Your task to perform on an android device: Add bose quietcomfort 35 to the cart on amazon.com Image 0: 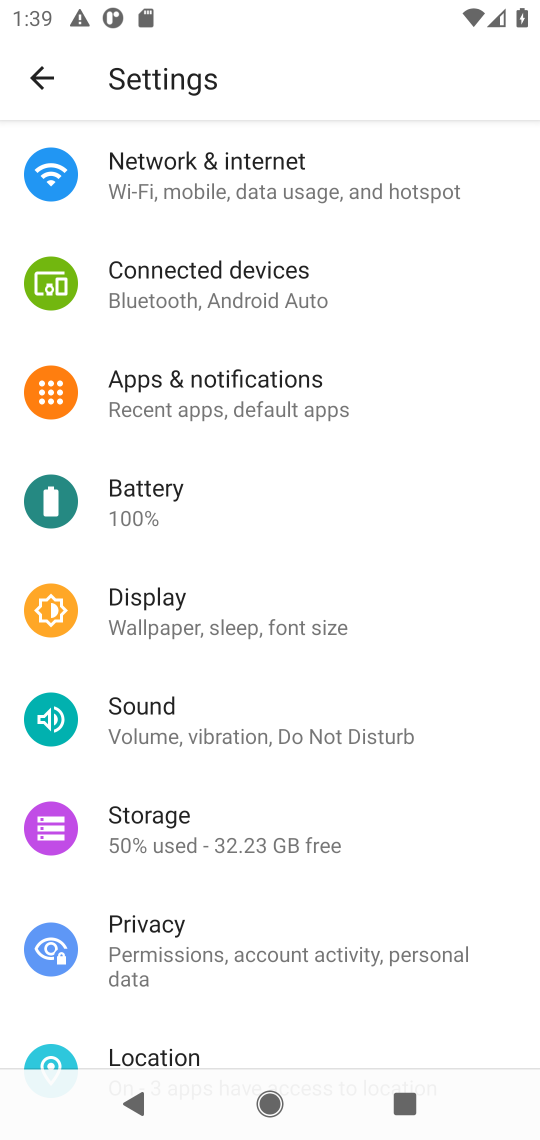
Step 0: press home button
Your task to perform on an android device: Add bose quietcomfort 35 to the cart on amazon.com Image 1: 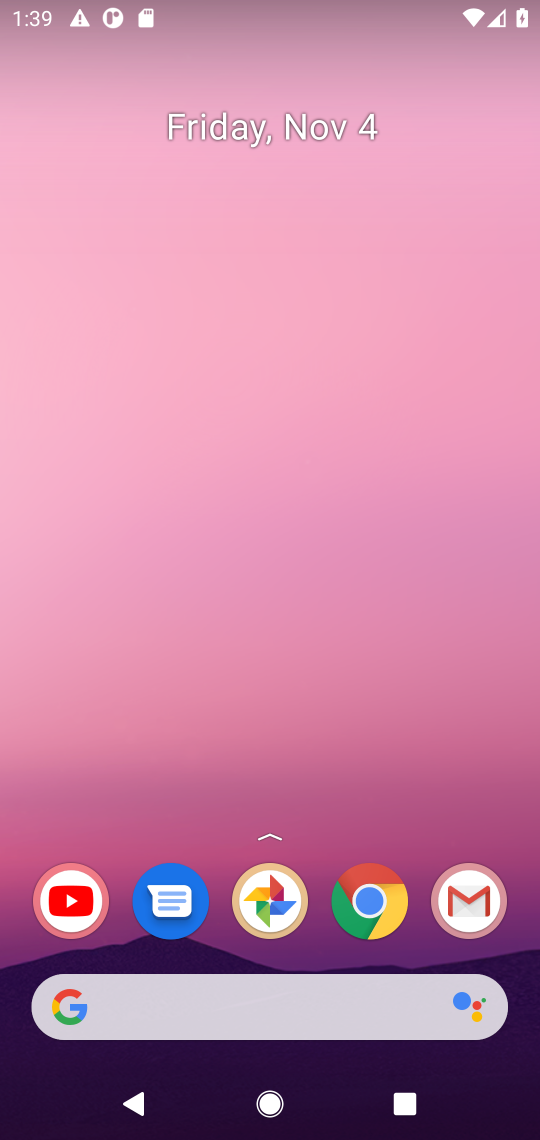
Step 1: click (358, 903)
Your task to perform on an android device: Add bose quietcomfort 35 to the cart on amazon.com Image 2: 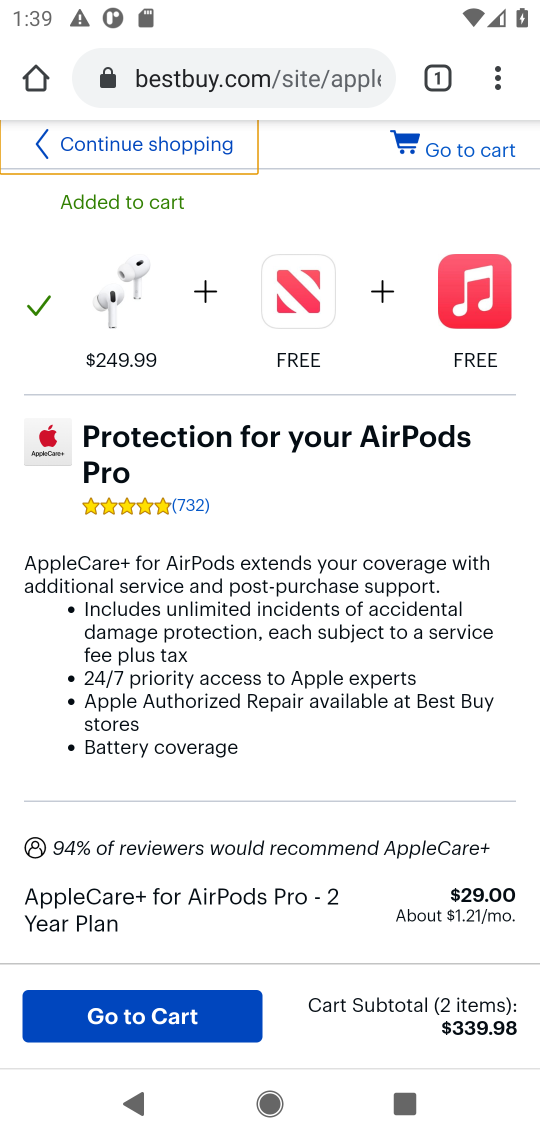
Step 2: click (31, 78)
Your task to perform on an android device: Add bose quietcomfort 35 to the cart on amazon.com Image 3: 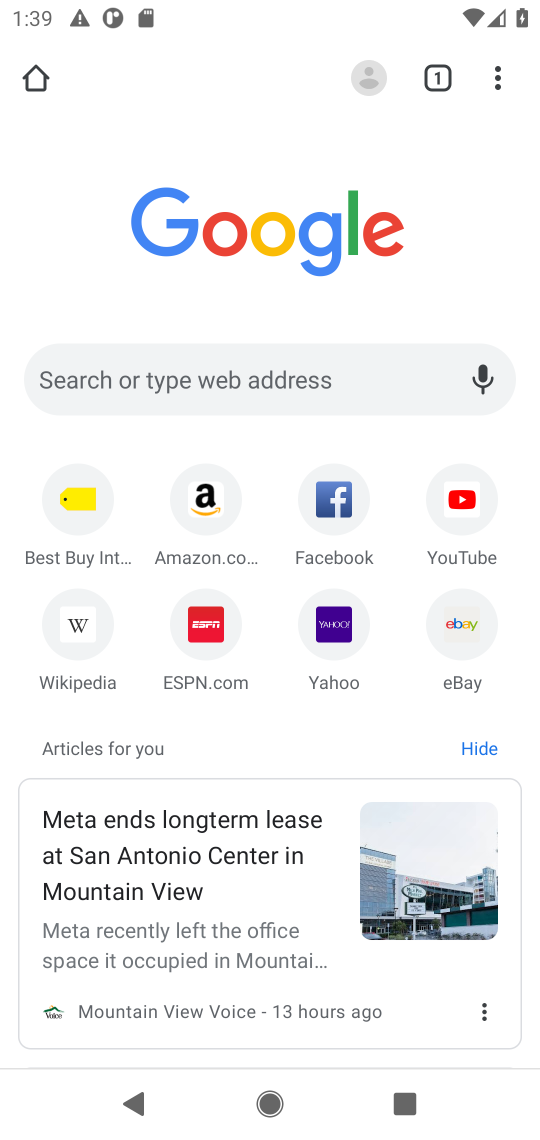
Step 3: click (228, 499)
Your task to perform on an android device: Add bose quietcomfort 35 to the cart on amazon.com Image 4: 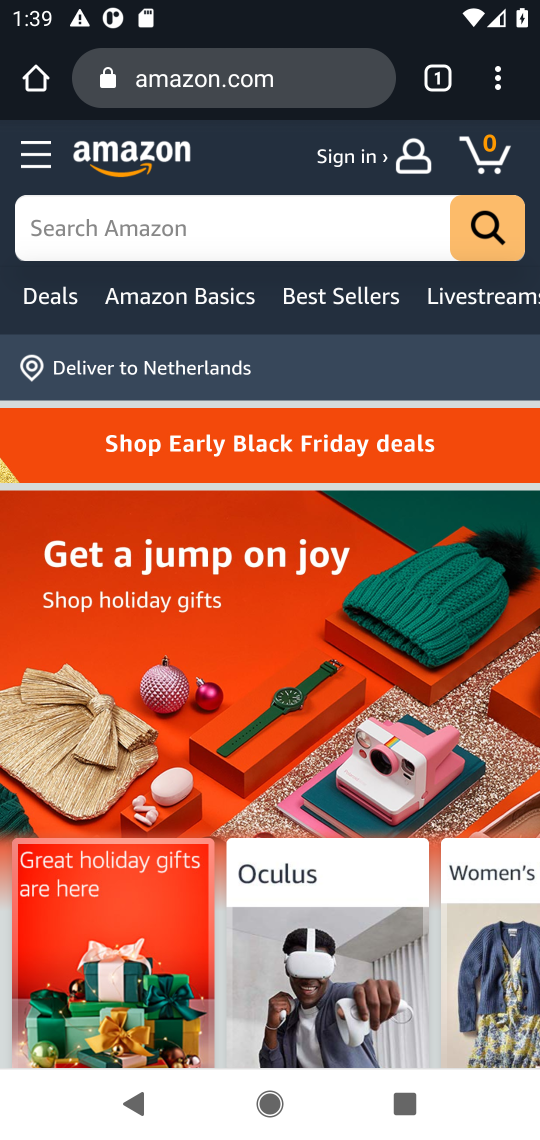
Step 4: click (352, 236)
Your task to perform on an android device: Add bose quietcomfort 35 to the cart on amazon.com Image 5: 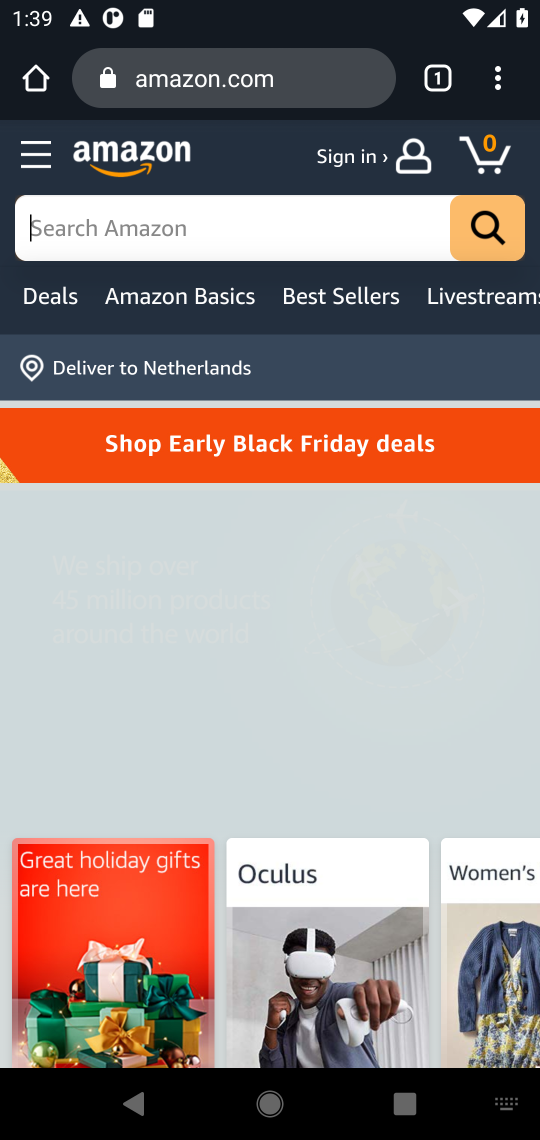
Step 5: type "bose quietcomfort 35"
Your task to perform on an android device: Add bose quietcomfort 35 to the cart on amazon.com Image 6: 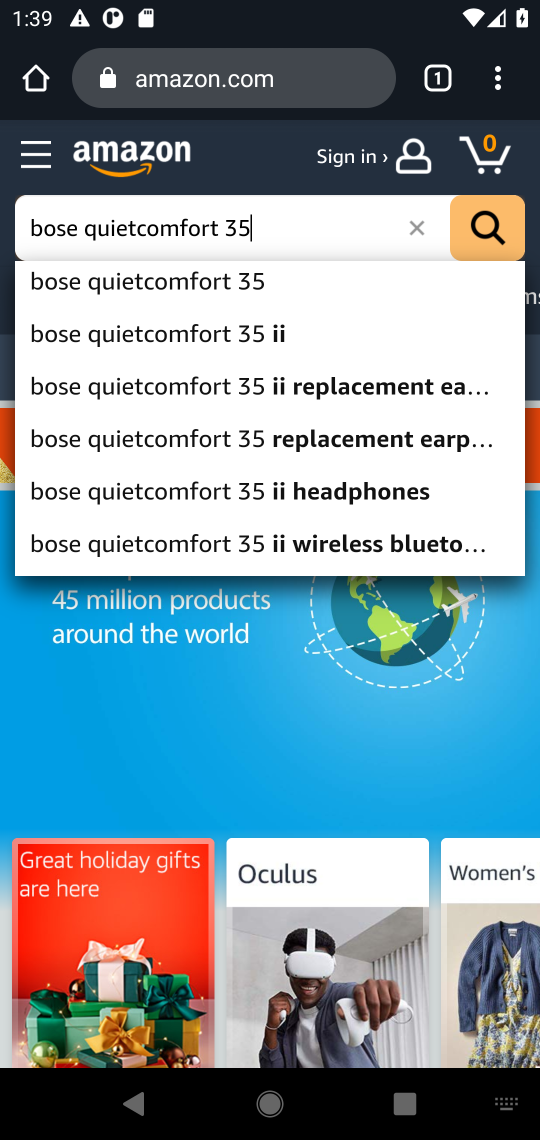
Step 6: press enter
Your task to perform on an android device: Add bose quietcomfort 35 to the cart on amazon.com Image 7: 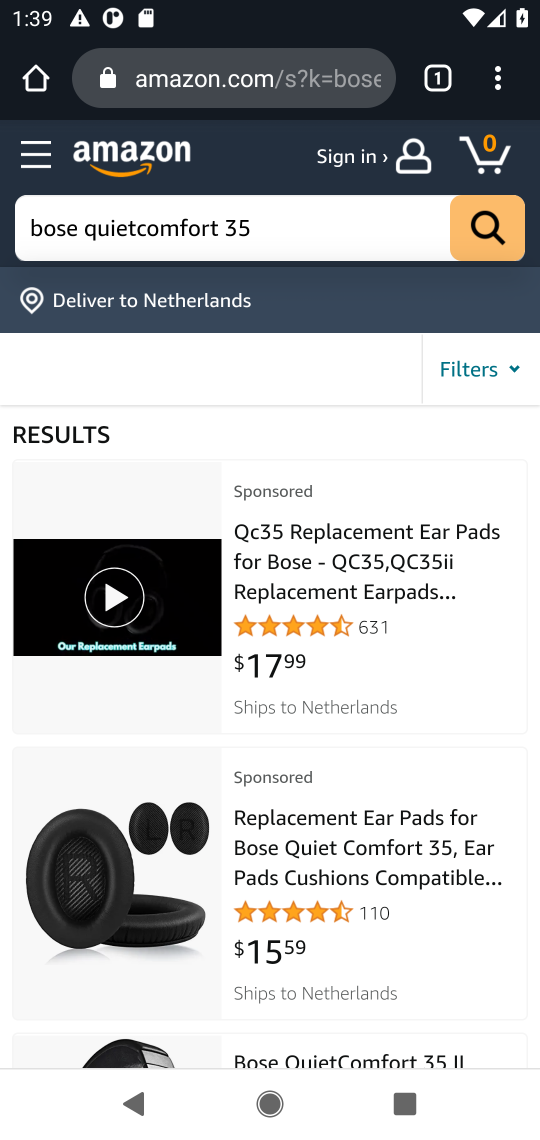
Step 7: click (116, 849)
Your task to perform on an android device: Add bose quietcomfort 35 to the cart on amazon.com Image 8: 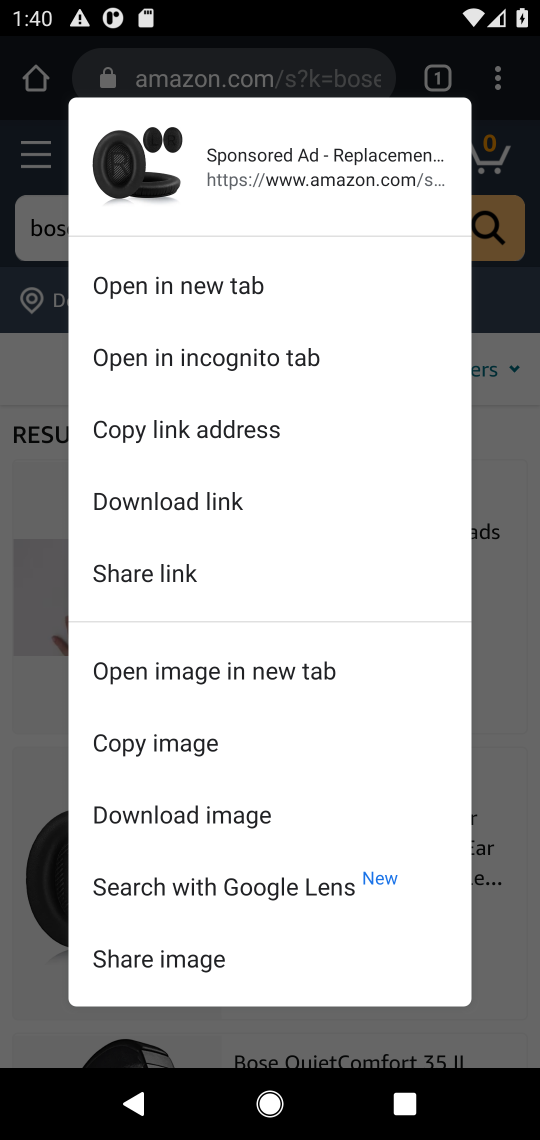
Step 8: click (514, 677)
Your task to perform on an android device: Add bose quietcomfort 35 to the cart on amazon.com Image 9: 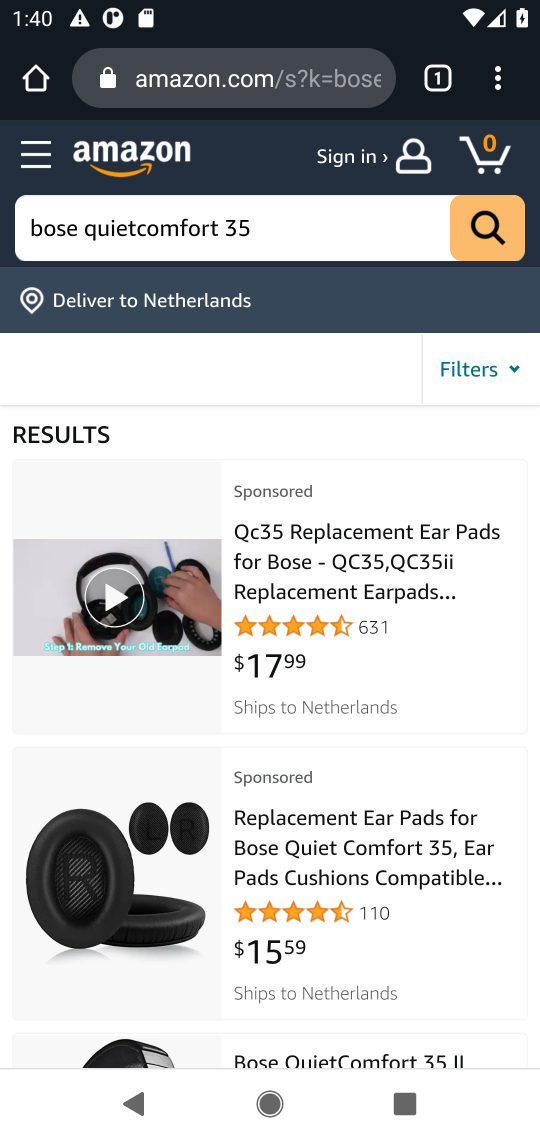
Step 9: click (369, 835)
Your task to perform on an android device: Add bose quietcomfort 35 to the cart on amazon.com Image 10: 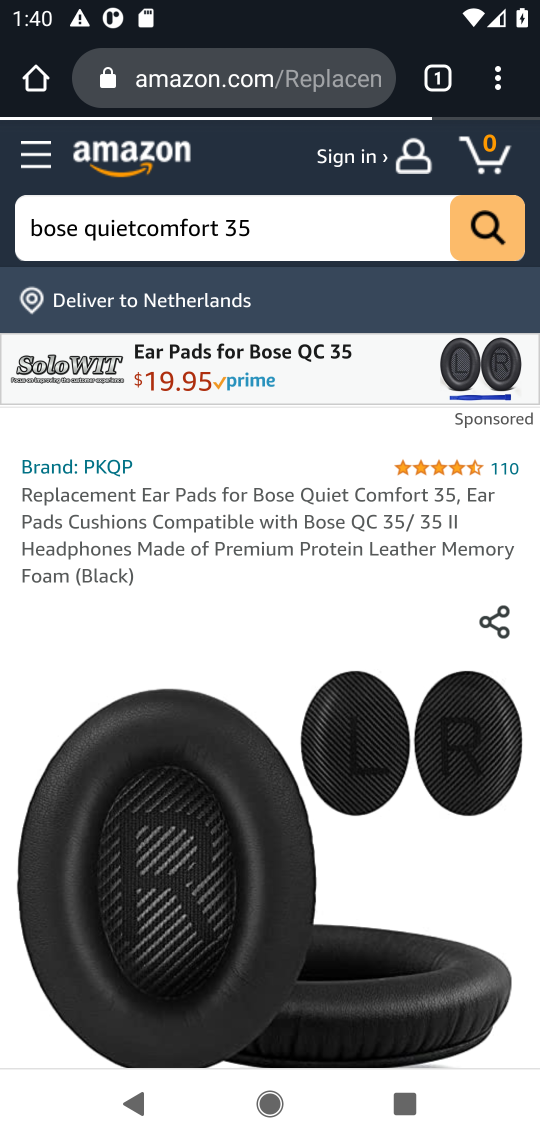
Step 10: drag from (276, 853) to (322, 391)
Your task to perform on an android device: Add bose quietcomfort 35 to the cart on amazon.com Image 11: 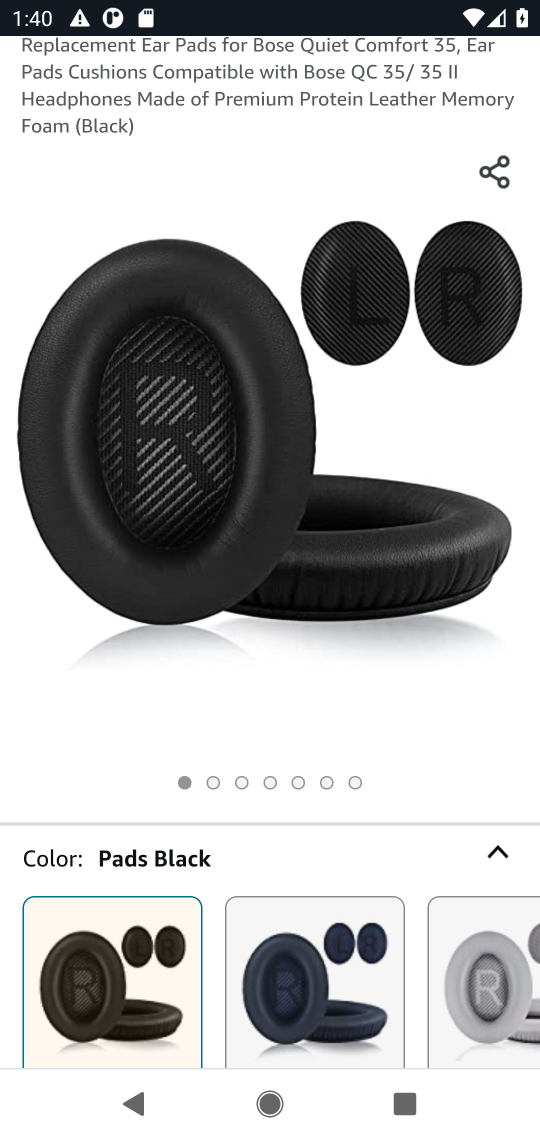
Step 11: drag from (418, 782) to (390, 346)
Your task to perform on an android device: Add bose quietcomfort 35 to the cart on amazon.com Image 12: 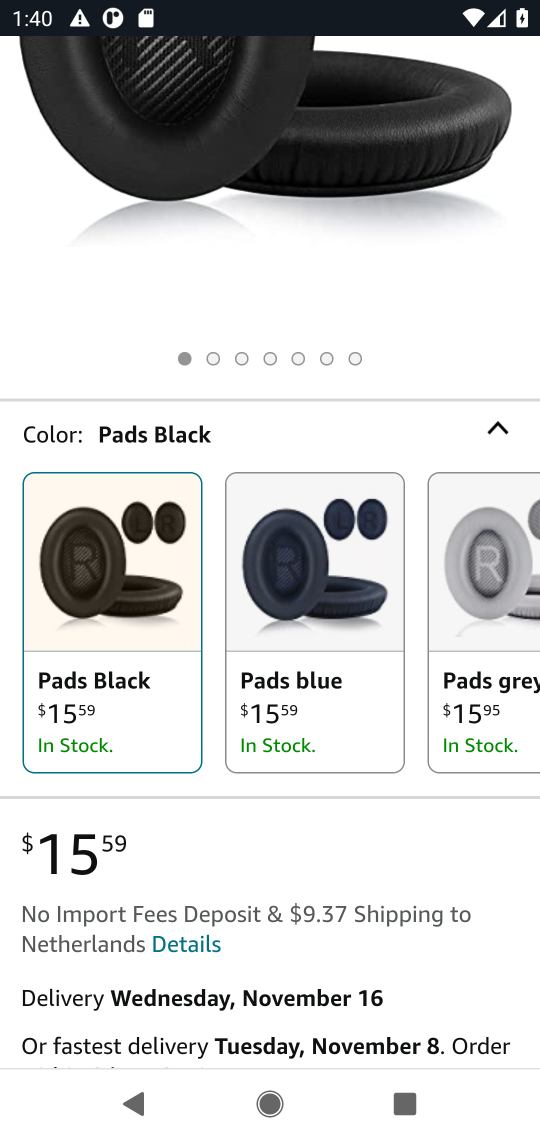
Step 12: drag from (411, 840) to (406, 377)
Your task to perform on an android device: Add bose quietcomfort 35 to the cart on amazon.com Image 13: 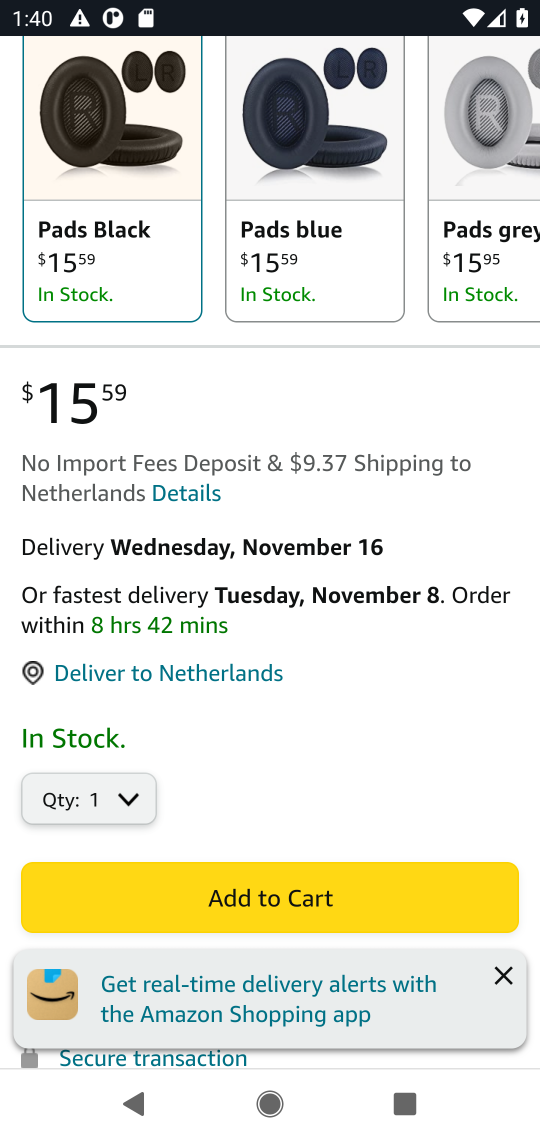
Step 13: click (296, 891)
Your task to perform on an android device: Add bose quietcomfort 35 to the cart on amazon.com Image 14: 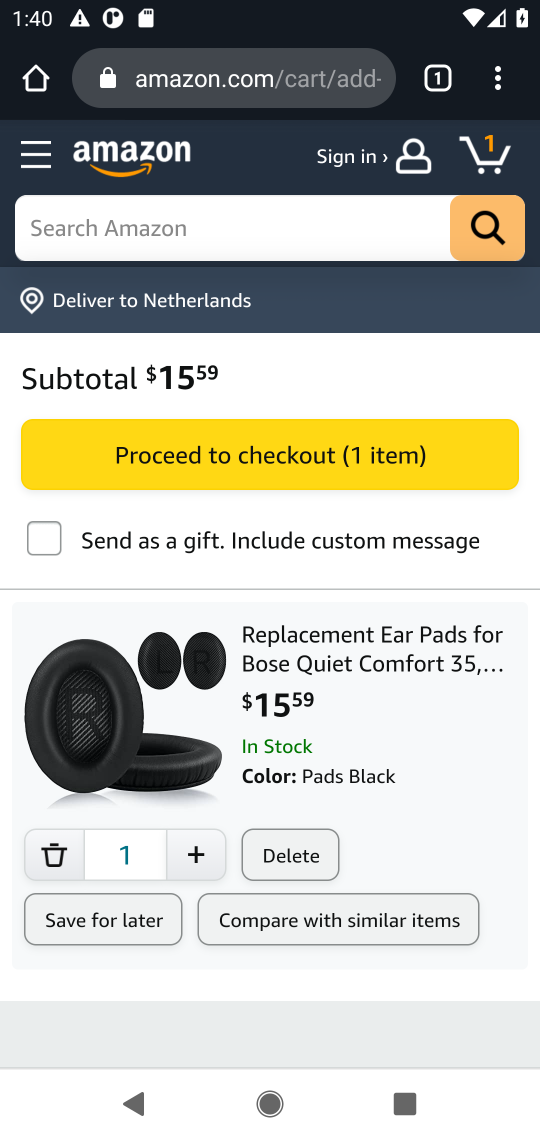
Step 14: task complete